Your task to perform on an android device: check storage Image 0: 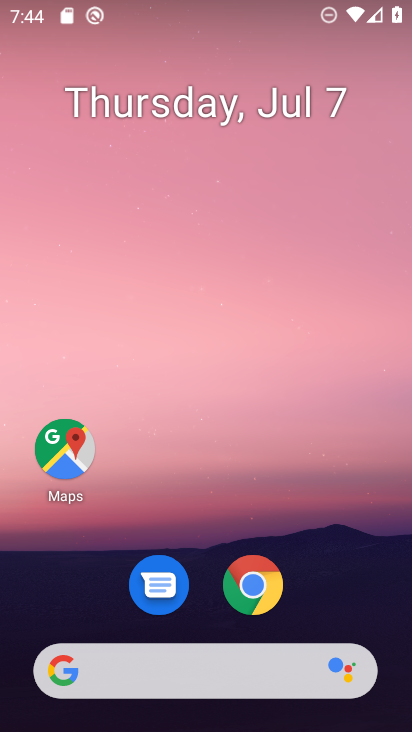
Step 0: drag from (215, 657) to (304, 101)
Your task to perform on an android device: check storage Image 1: 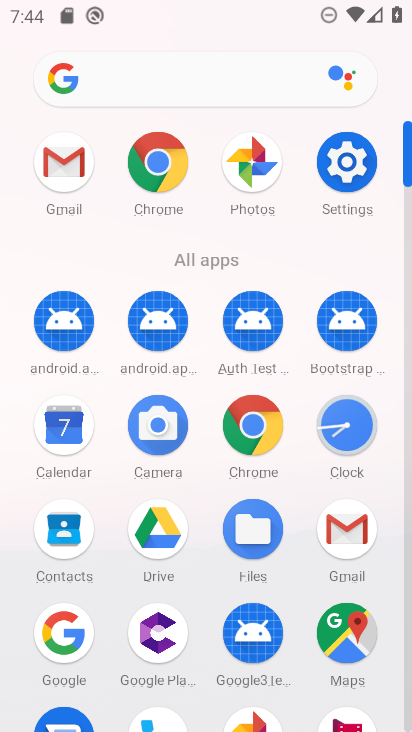
Step 1: click (345, 164)
Your task to perform on an android device: check storage Image 2: 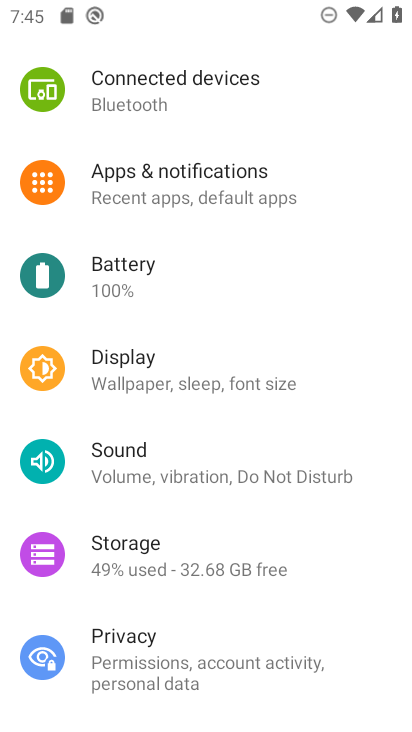
Step 2: click (214, 547)
Your task to perform on an android device: check storage Image 3: 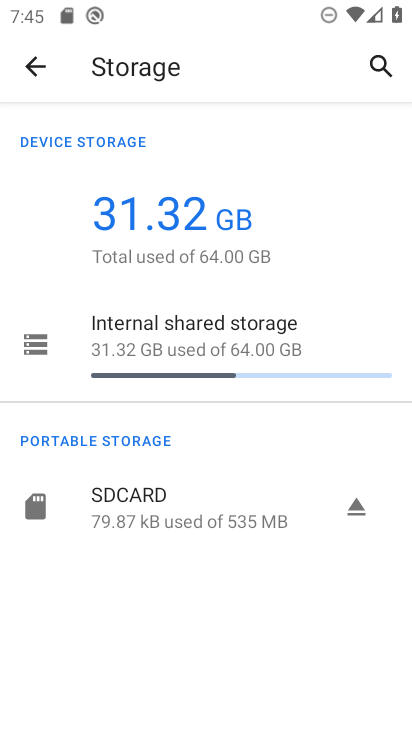
Step 3: task complete